Your task to perform on an android device: open app "Google Sheets" Image 0: 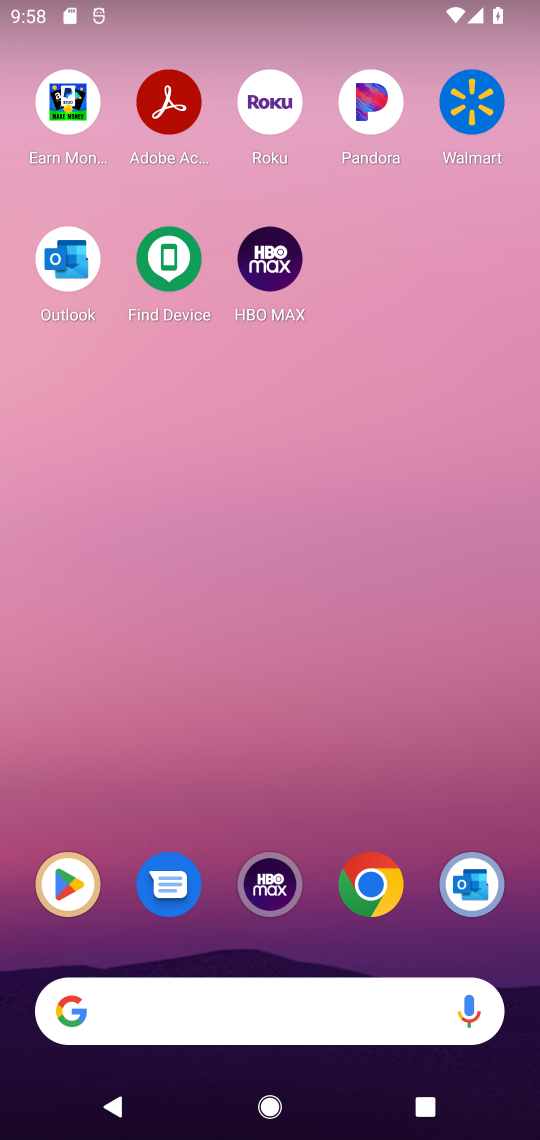
Step 0: click (63, 910)
Your task to perform on an android device: open app "Google Sheets" Image 1: 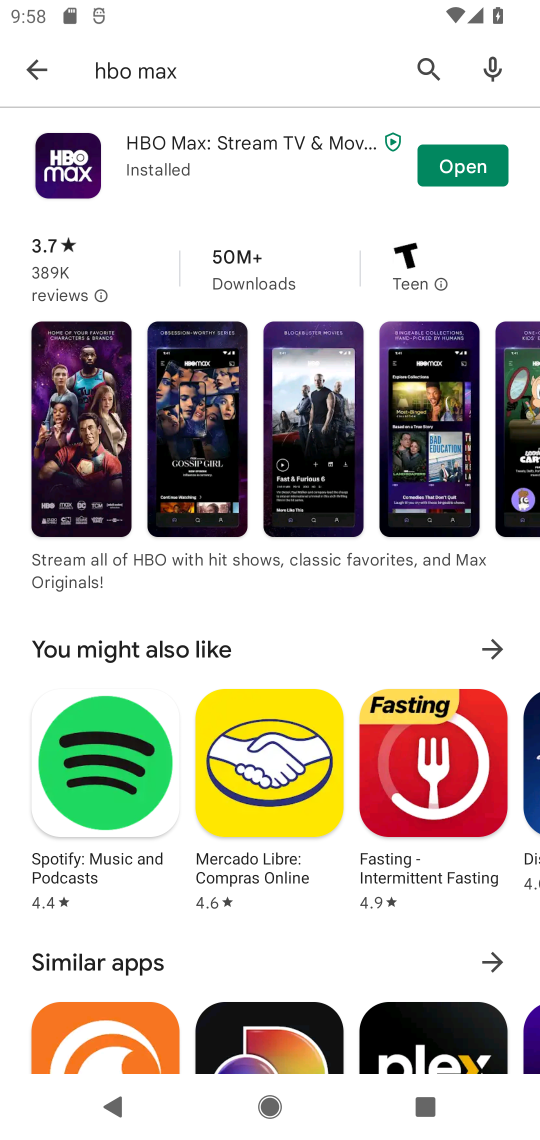
Step 1: click (199, 55)
Your task to perform on an android device: open app "Google Sheets" Image 2: 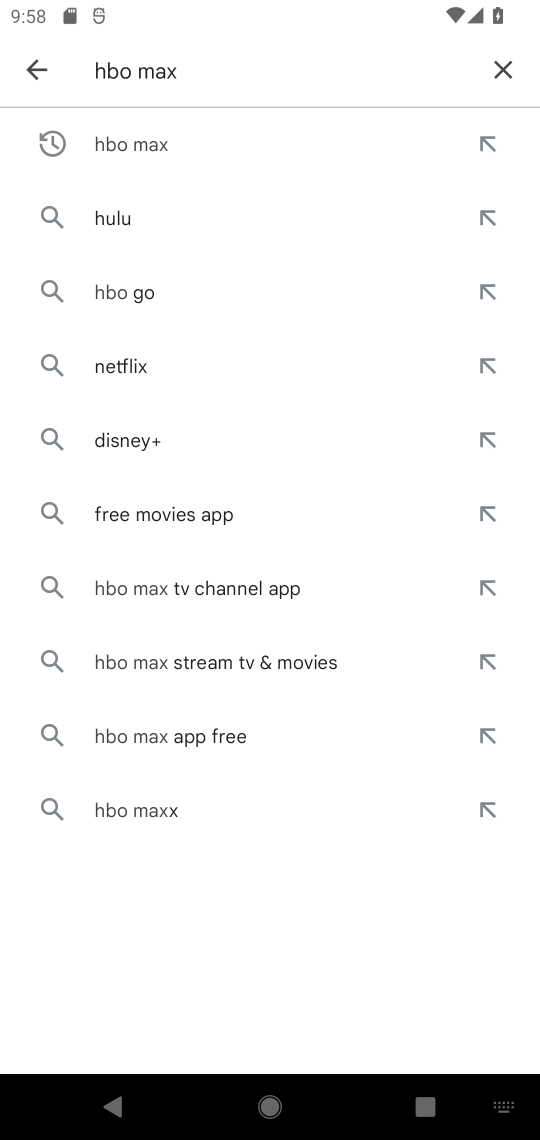
Step 2: click (493, 60)
Your task to perform on an android device: open app "Google Sheets" Image 3: 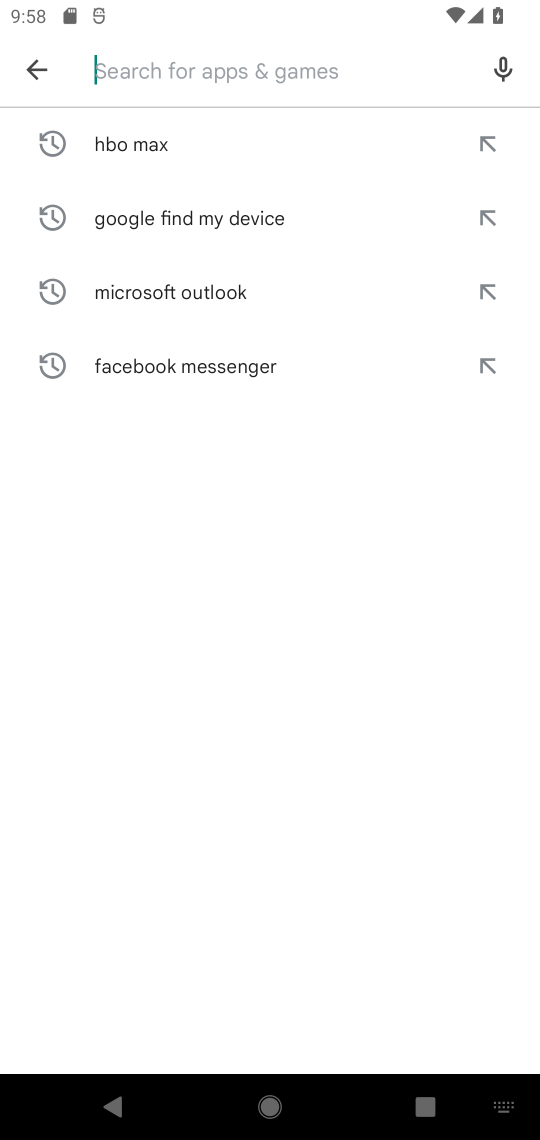
Step 3: type "google sheets"
Your task to perform on an android device: open app "Google Sheets" Image 4: 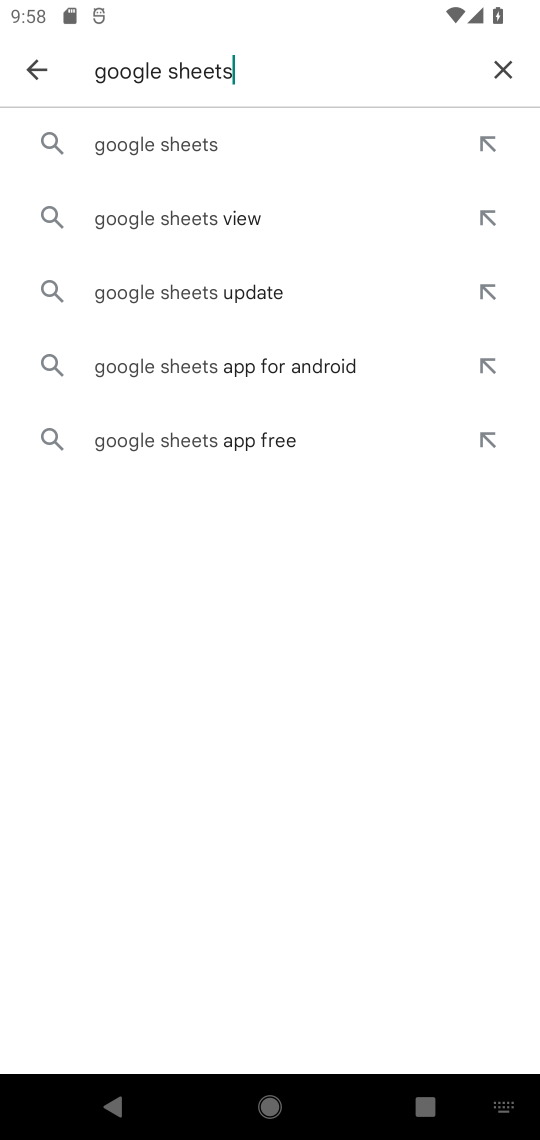
Step 4: click (148, 143)
Your task to perform on an android device: open app "Google Sheets" Image 5: 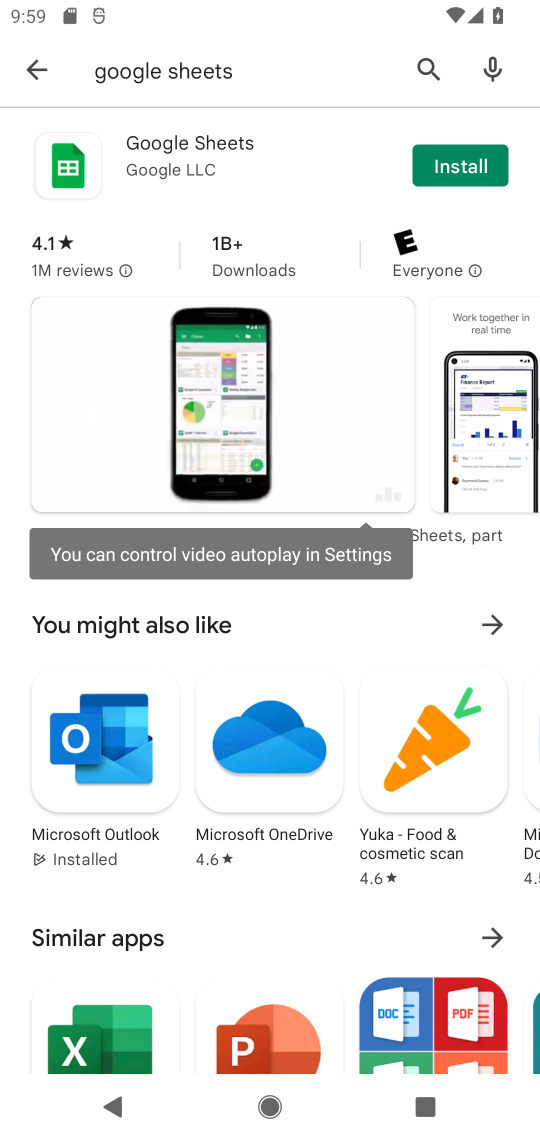
Step 5: task complete